Your task to perform on an android device: Open Google Maps Image 0: 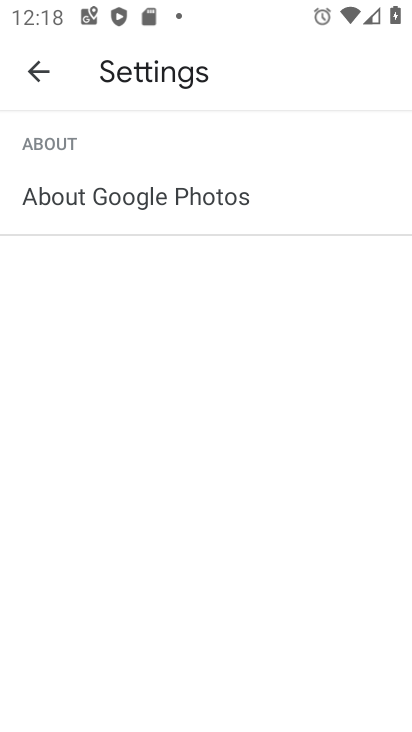
Step 0: press home button
Your task to perform on an android device: Open Google Maps Image 1: 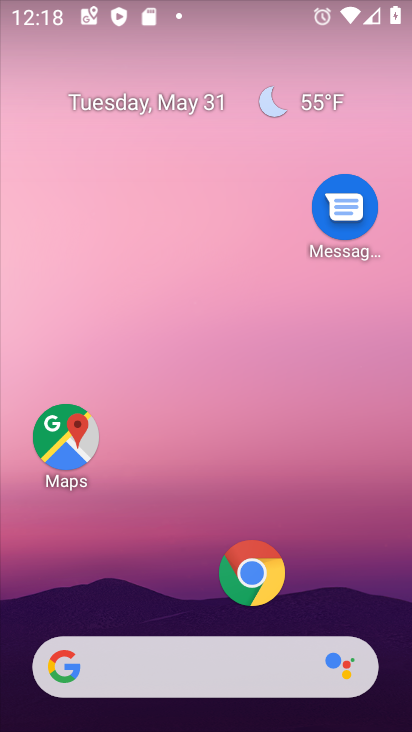
Step 1: click (75, 452)
Your task to perform on an android device: Open Google Maps Image 2: 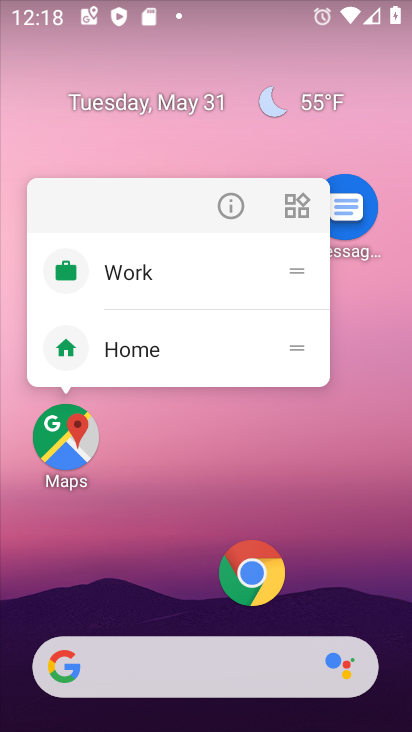
Step 2: click (75, 452)
Your task to perform on an android device: Open Google Maps Image 3: 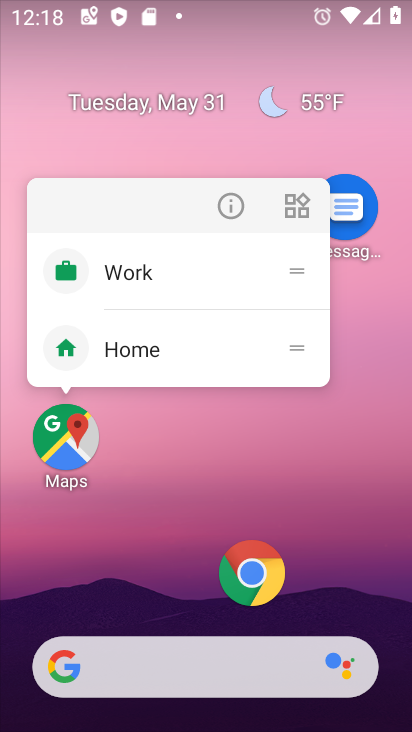
Step 3: click (73, 447)
Your task to perform on an android device: Open Google Maps Image 4: 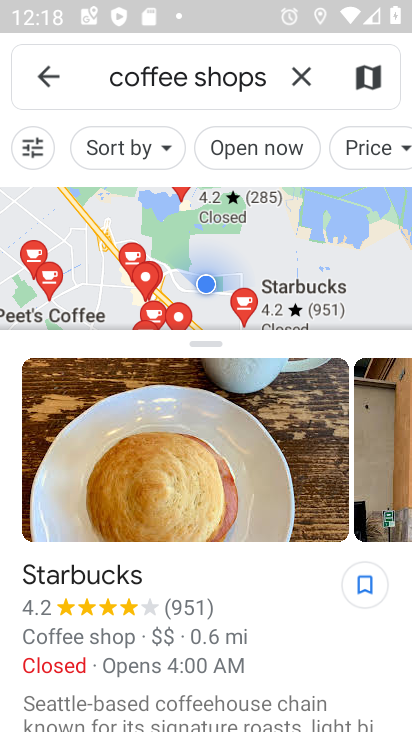
Step 4: click (29, 66)
Your task to perform on an android device: Open Google Maps Image 5: 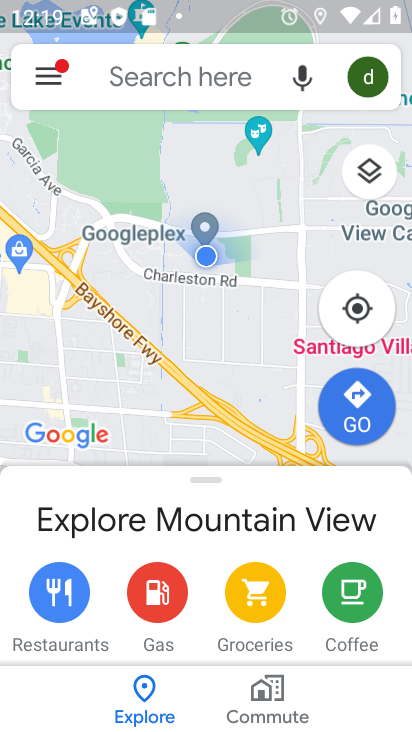
Step 5: task complete